Your task to perform on an android device: Add sony triple a to the cart on ebay Image 0: 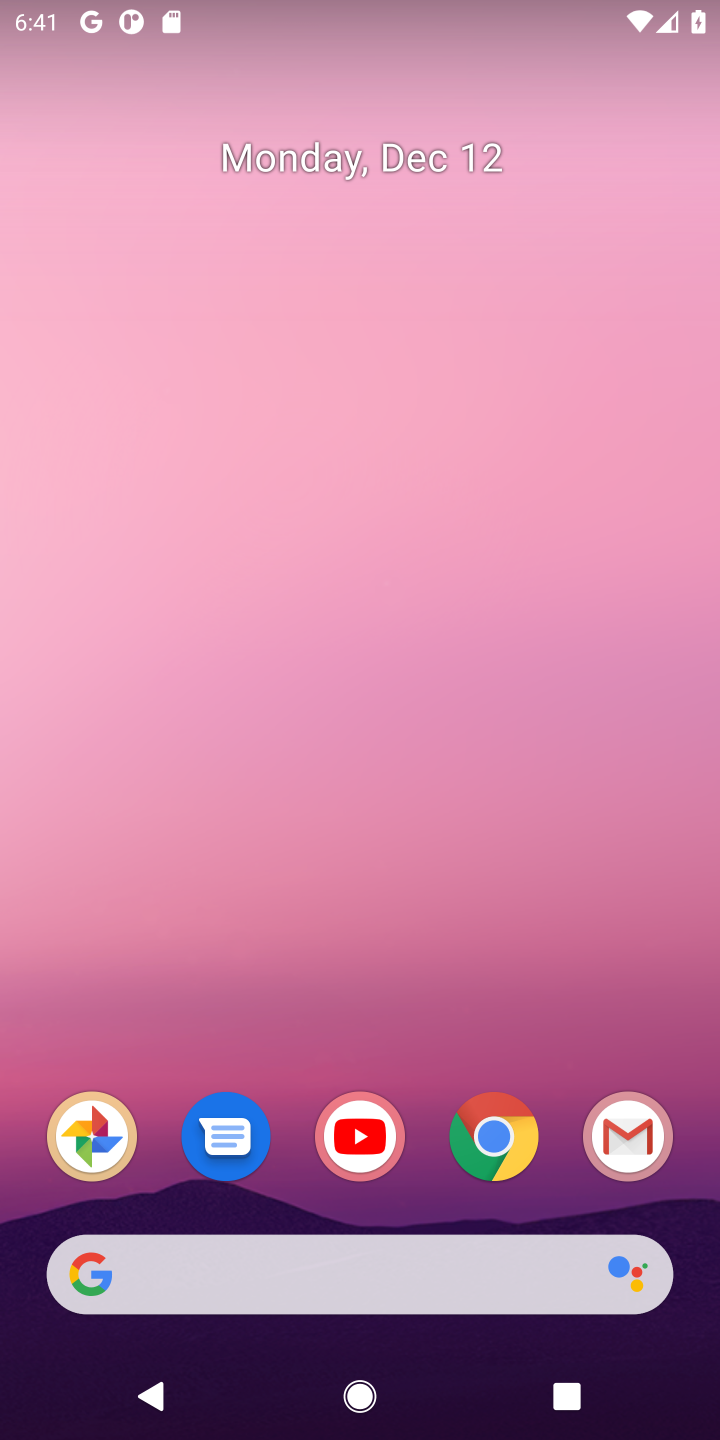
Step 0: click (497, 1132)
Your task to perform on an android device: Add sony triple a to the cart on ebay Image 1: 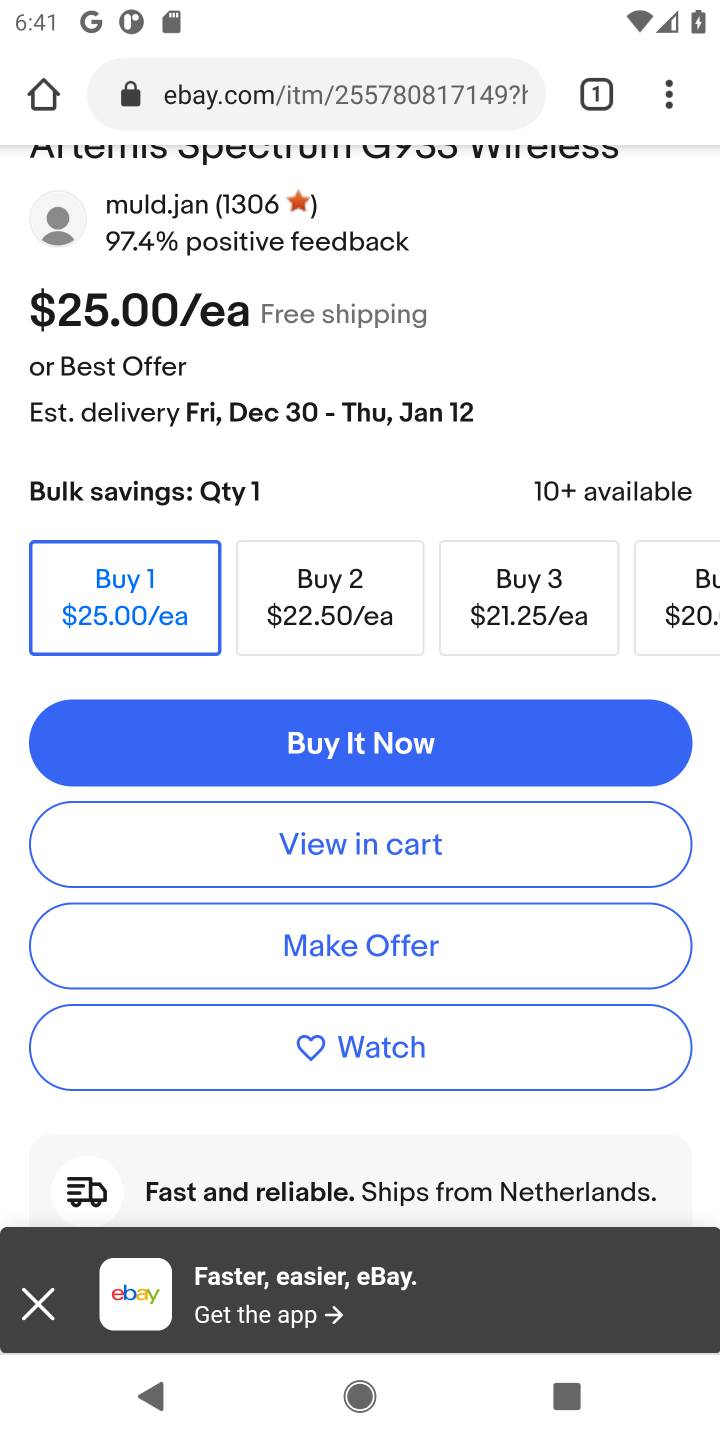
Step 1: drag from (545, 261) to (514, 900)
Your task to perform on an android device: Add sony triple a to the cart on ebay Image 2: 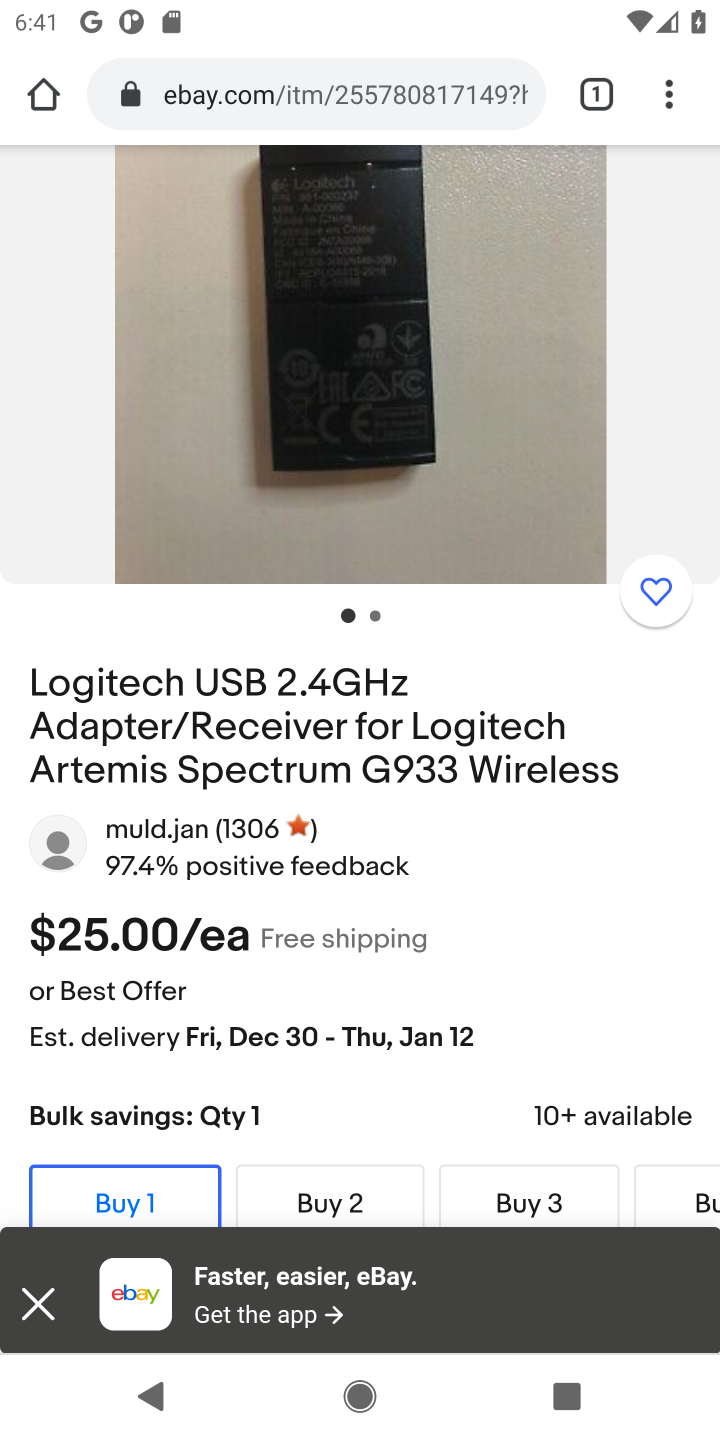
Step 2: drag from (666, 290) to (610, 934)
Your task to perform on an android device: Add sony triple a to the cart on ebay Image 3: 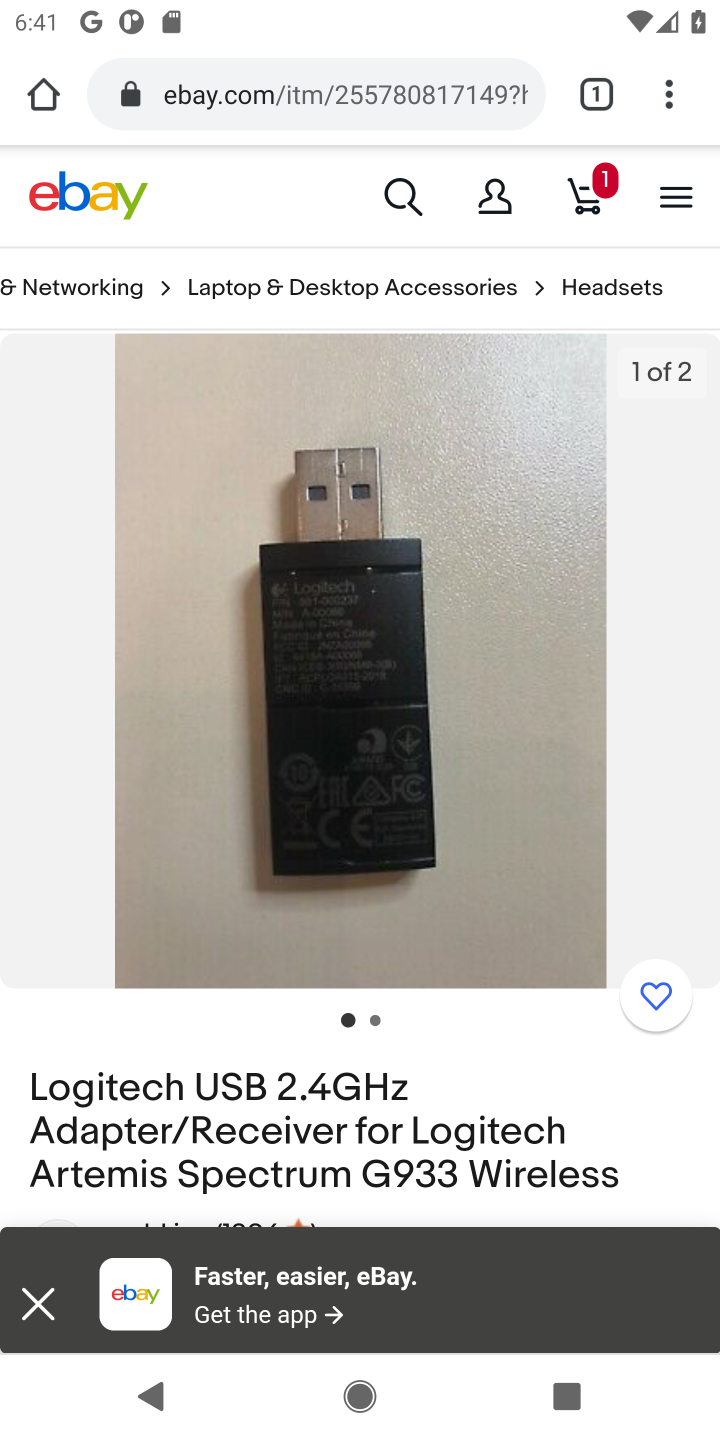
Step 3: click (405, 207)
Your task to perform on an android device: Add sony triple a to the cart on ebay Image 4: 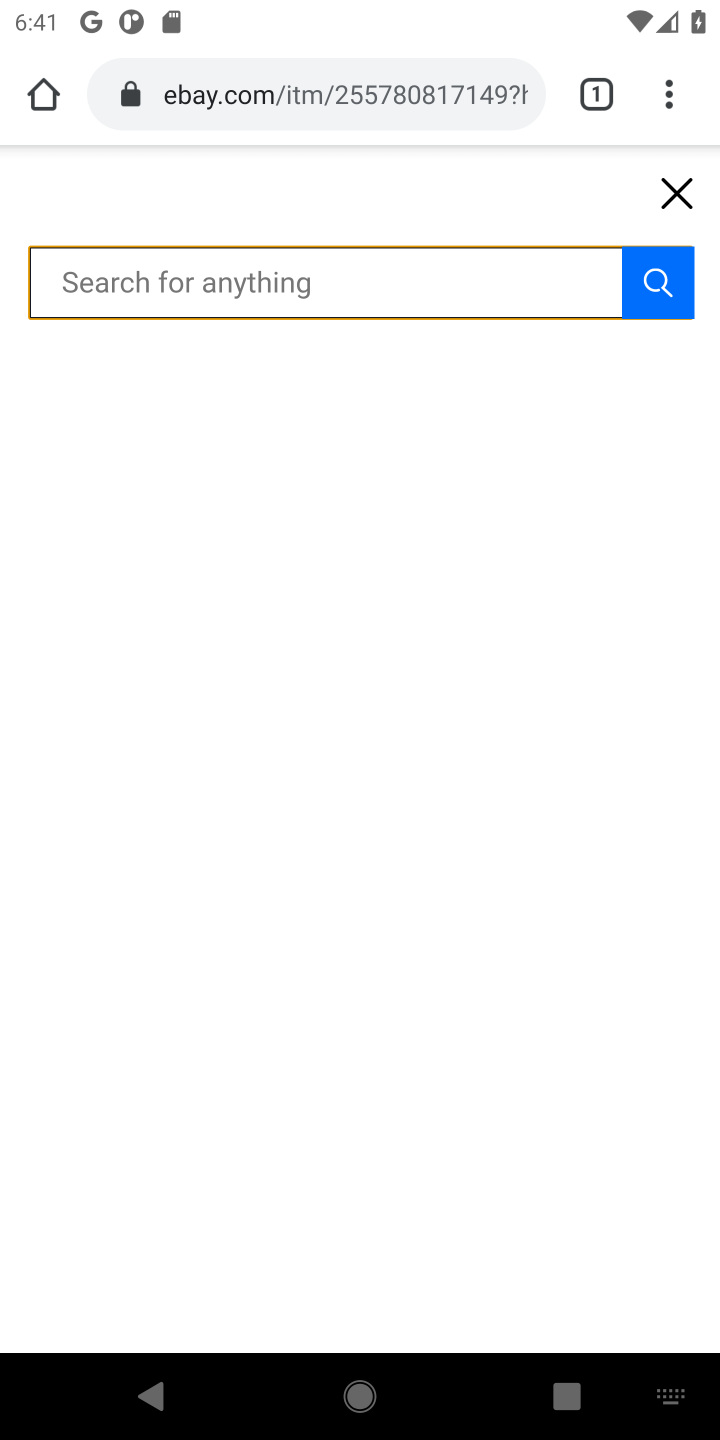
Step 4: click (154, 289)
Your task to perform on an android device: Add sony triple a to the cart on ebay Image 5: 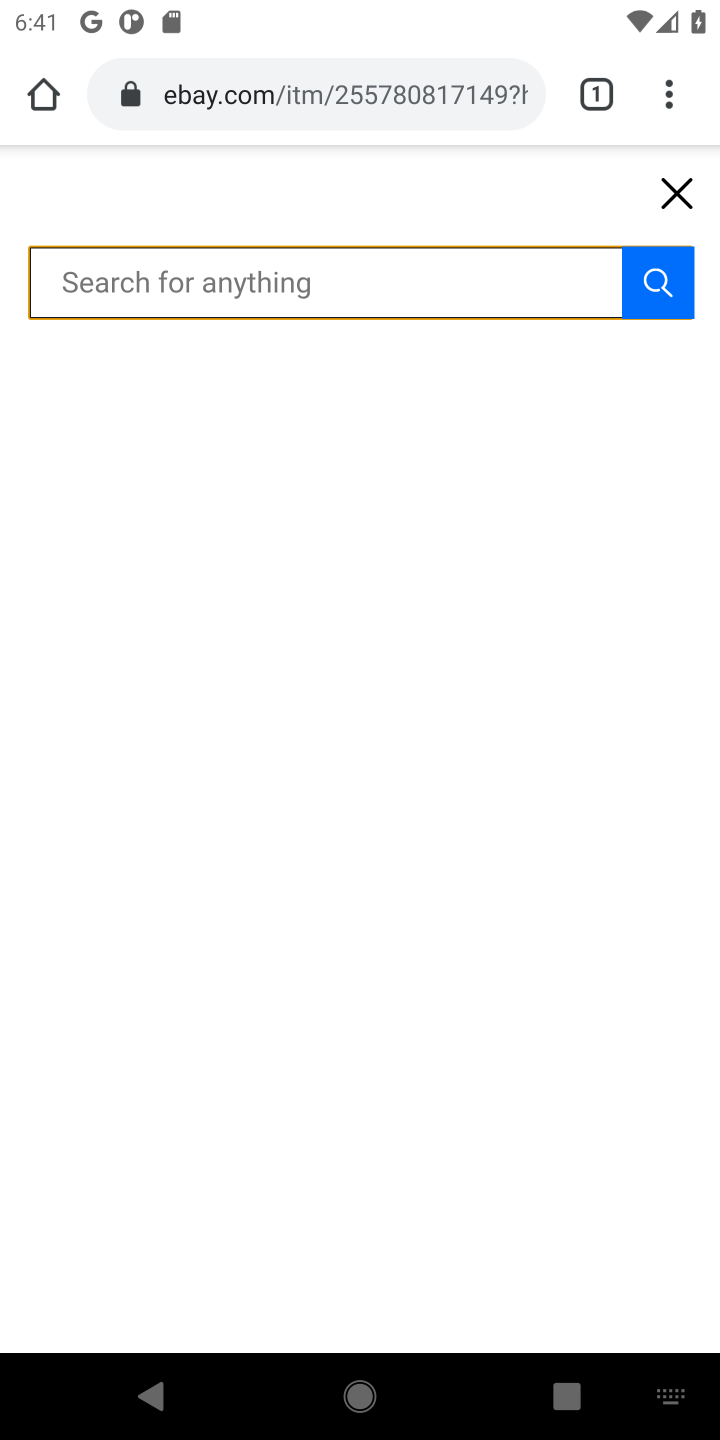
Step 5: type "sony triple a "
Your task to perform on an android device: Add sony triple a to the cart on ebay Image 6: 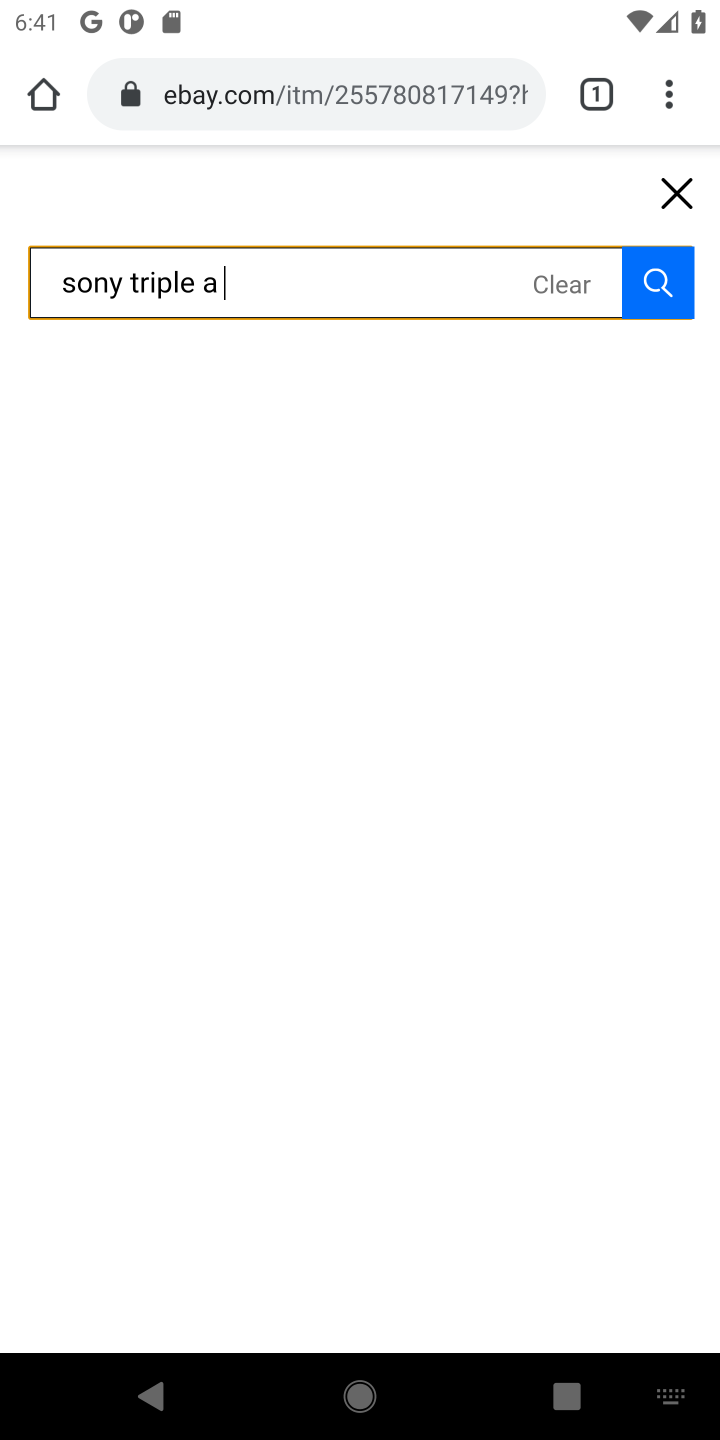
Step 6: click (648, 289)
Your task to perform on an android device: Add sony triple a to the cart on ebay Image 7: 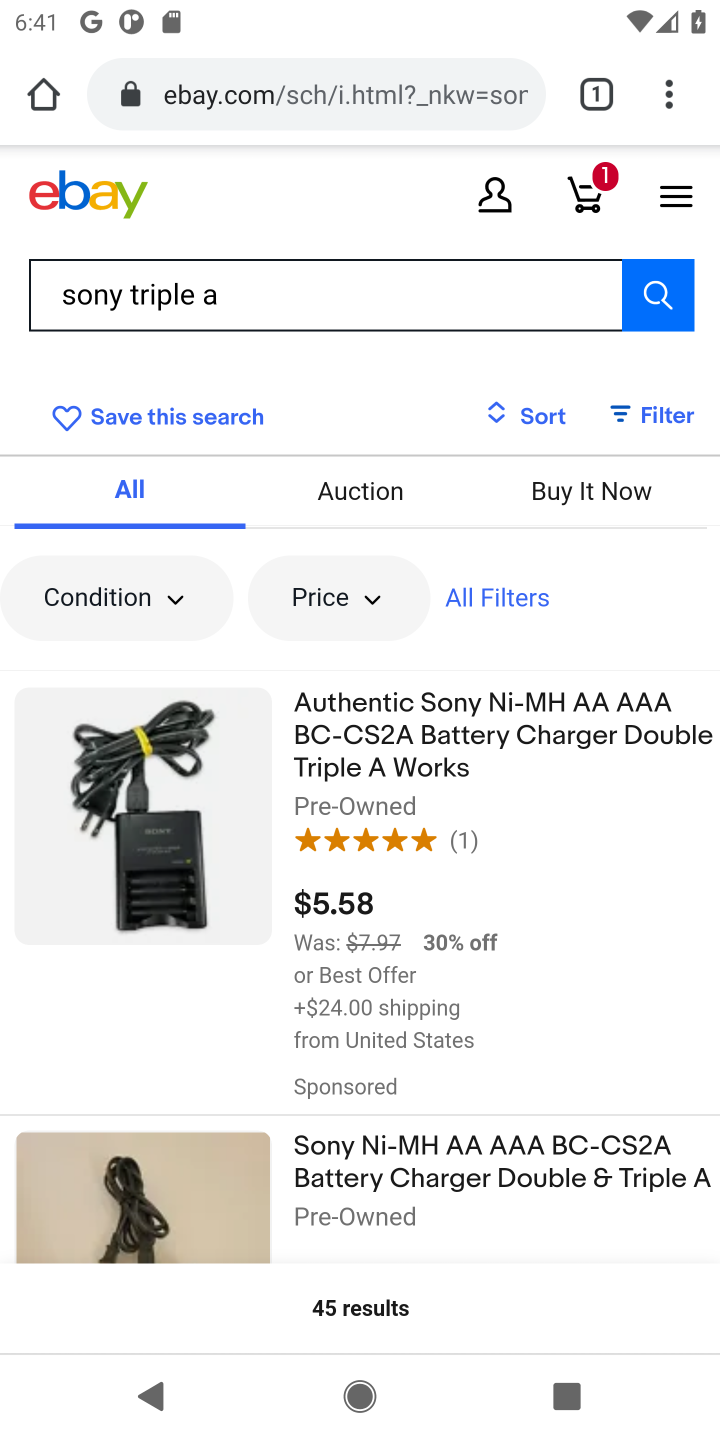
Step 7: click (388, 739)
Your task to perform on an android device: Add sony triple a to the cart on ebay Image 8: 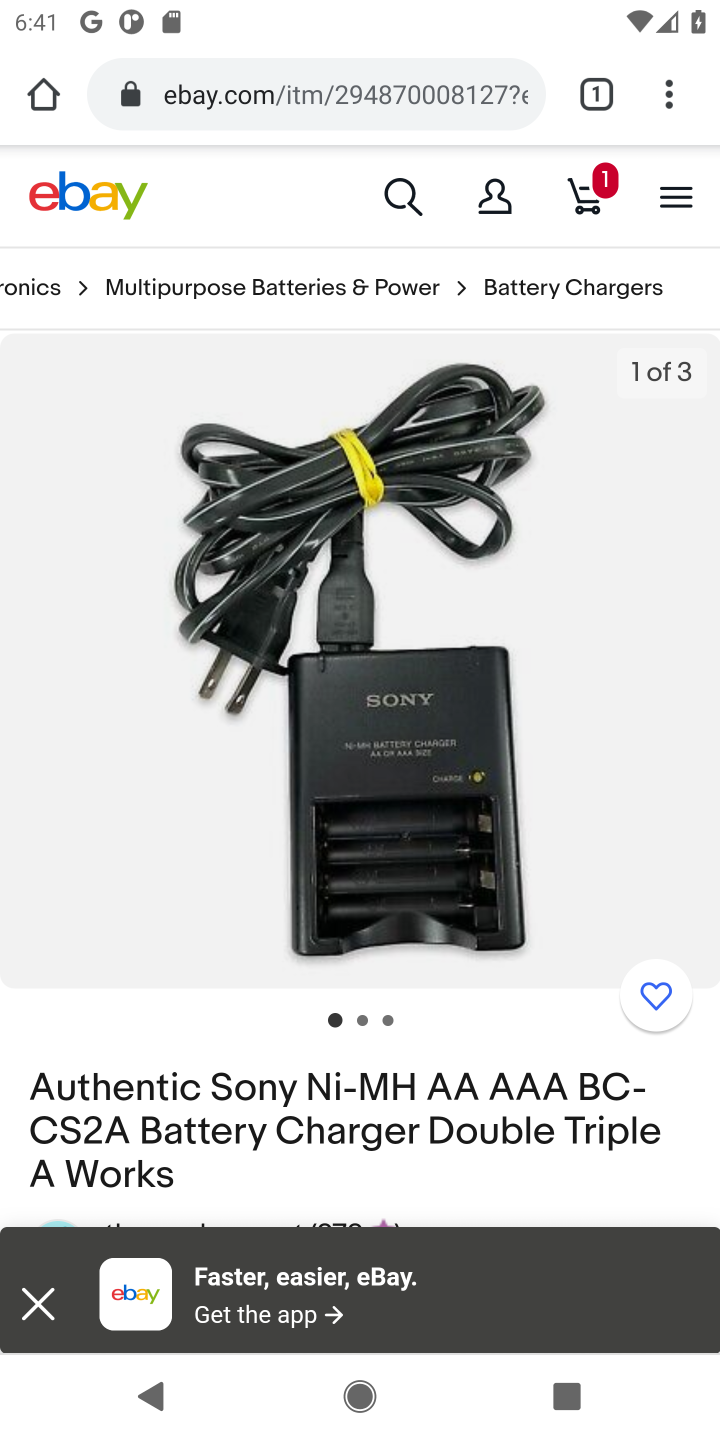
Step 8: drag from (385, 1159) to (353, 558)
Your task to perform on an android device: Add sony triple a to the cart on ebay Image 9: 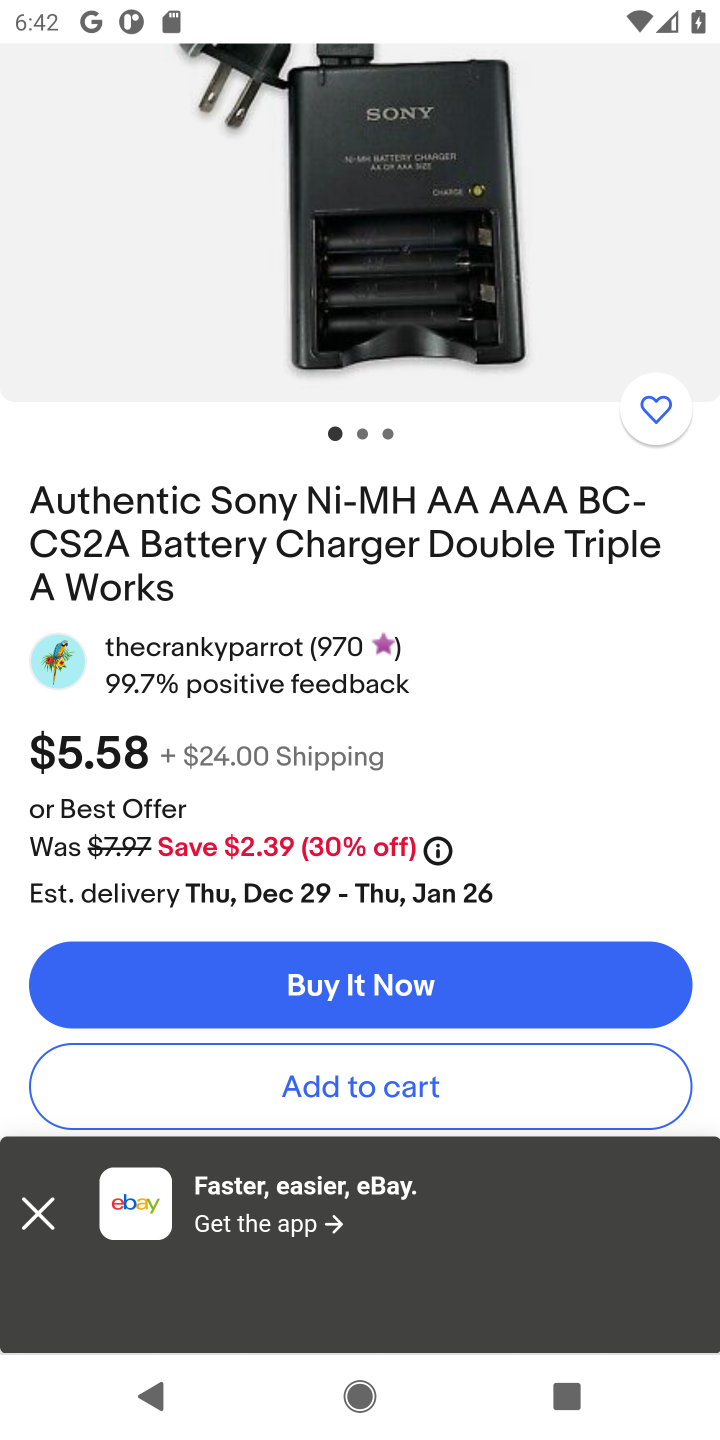
Step 9: click (329, 1080)
Your task to perform on an android device: Add sony triple a to the cart on ebay Image 10: 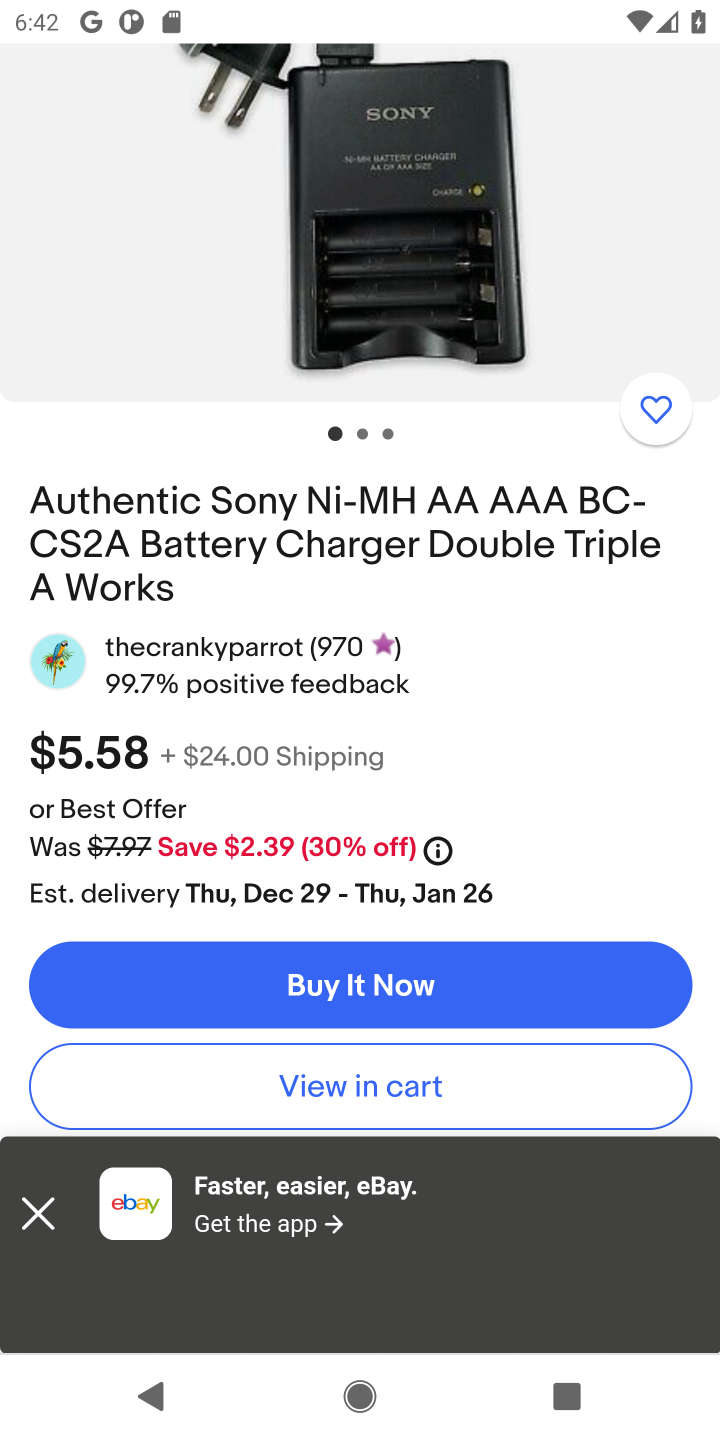
Step 10: task complete